Your task to perform on an android device: Go to Wikipedia Image 0: 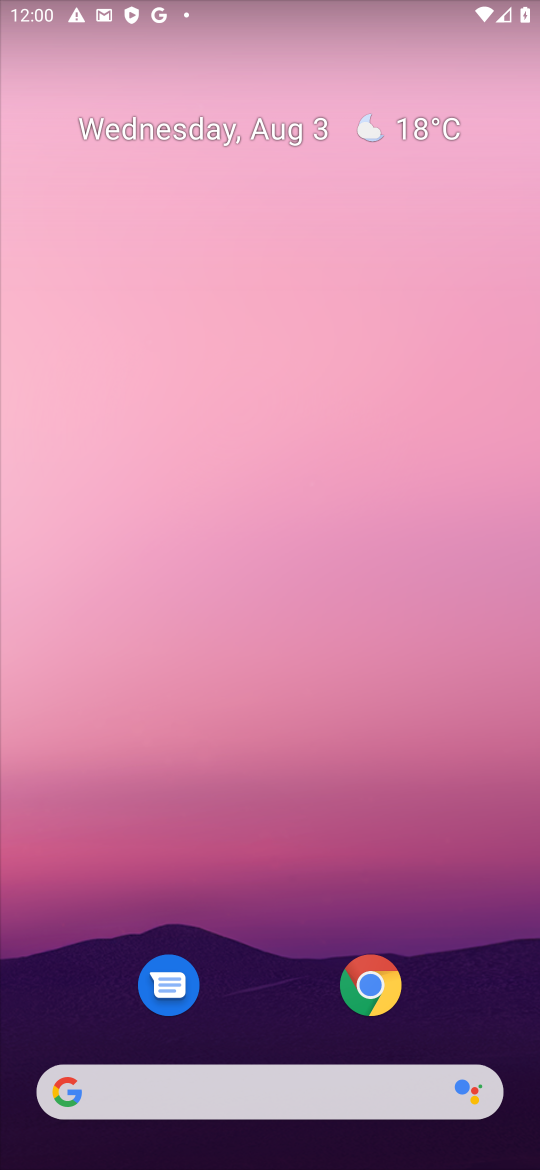
Step 0: drag from (336, 1043) to (259, 121)
Your task to perform on an android device: Go to Wikipedia Image 1: 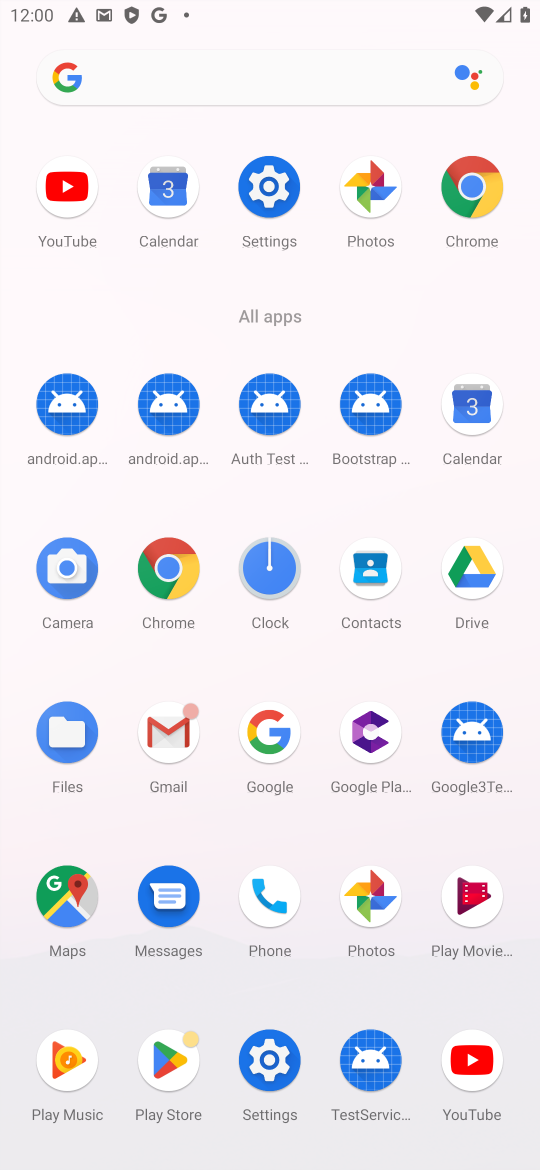
Step 1: click (264, 1058)
Your task to perform on an android device: Go to Wikipedia Image 2: 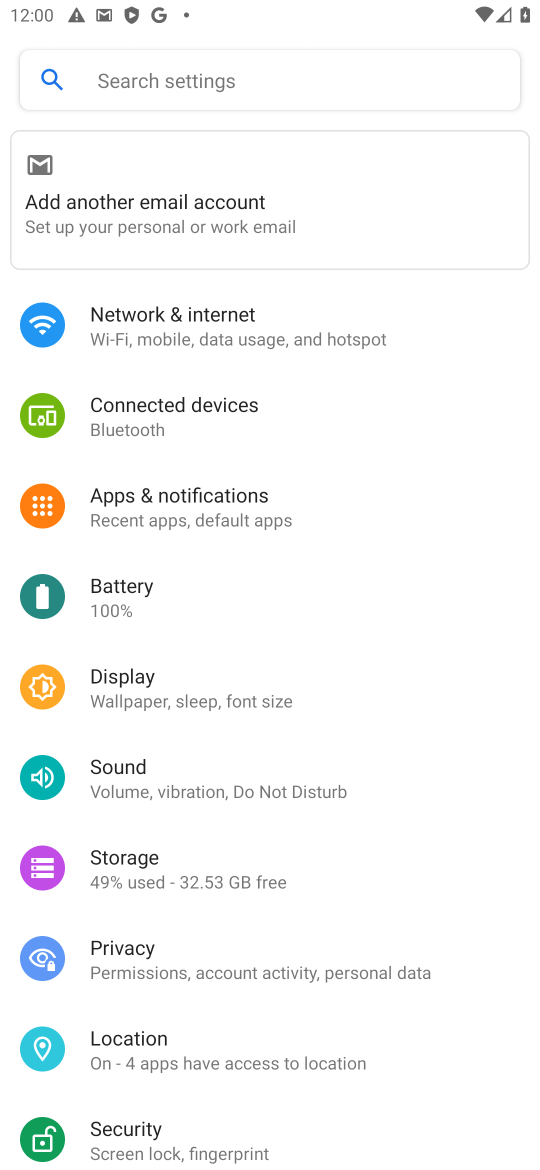
Step 2: press home button
Your task to perform on an android device: Go to Wikipedia Image 3: 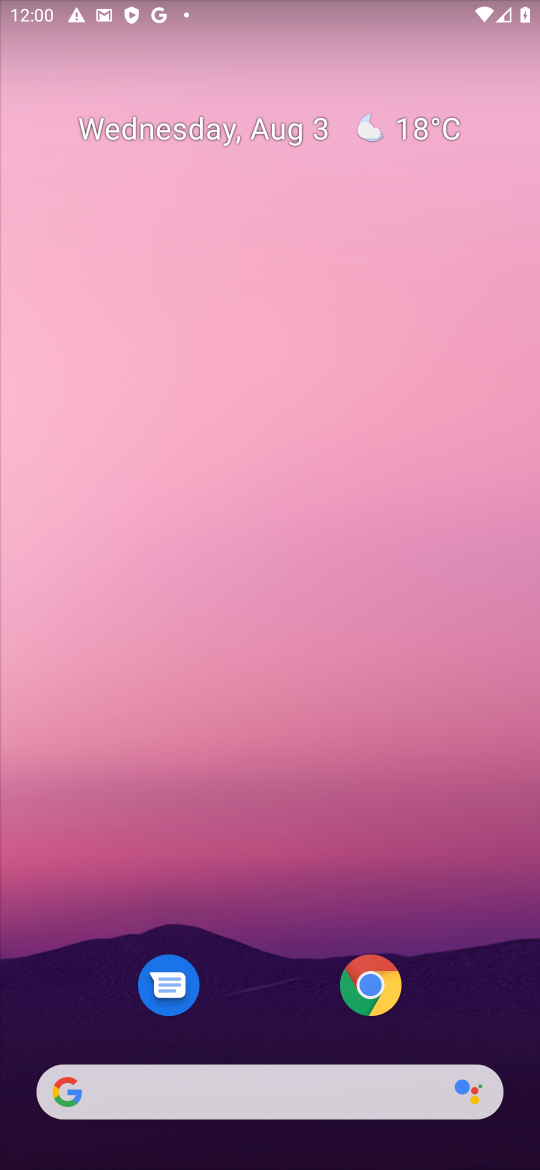
Step 3: drag from (298, 1057) to (269, 235)
Your task to perform on an android device: Go to Wikipedia Image 4: 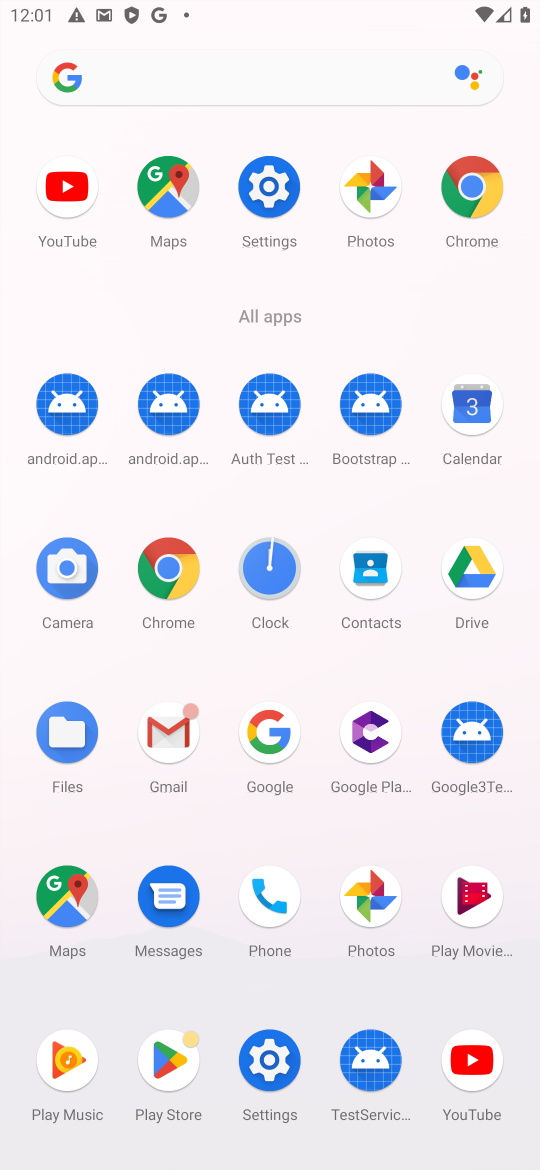
Step 4: click (160, 545)
Your task to perform on an android device: Go to Wikipedia Image 5: 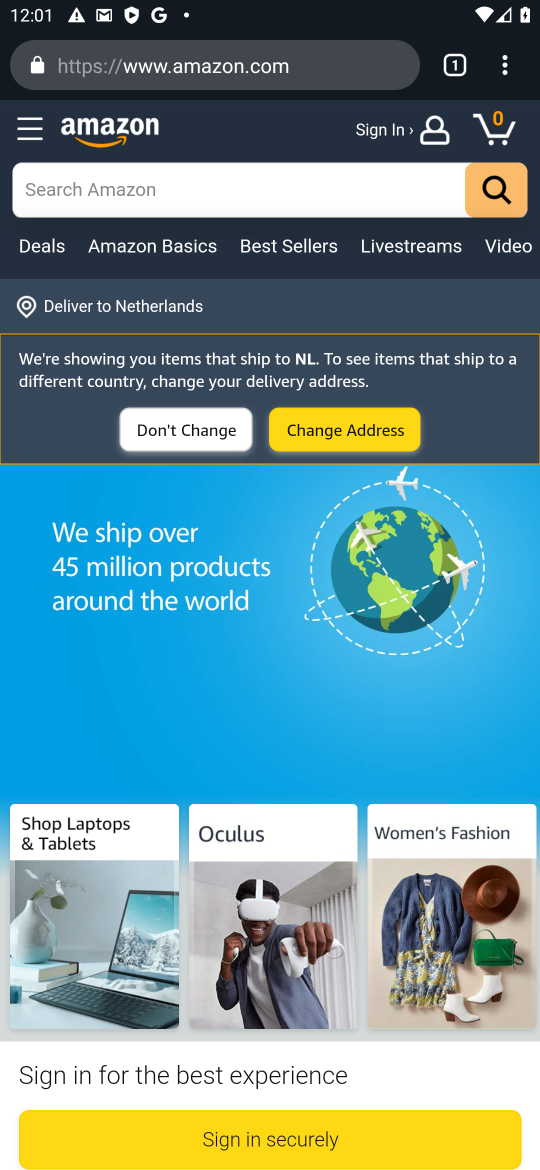
Step 5: click (358, 62)
Your task to perform on an android device: Go to Wikipedia Image 6: 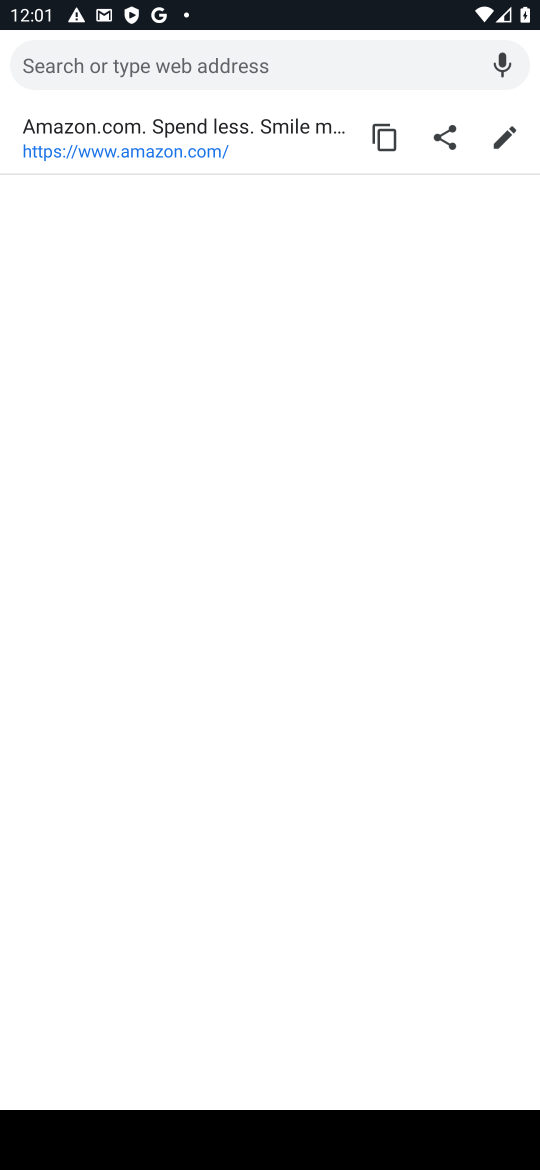
Step 6: type "wikipedia"
Your task to perform on an android device: Go to Wikipedia Image 7: 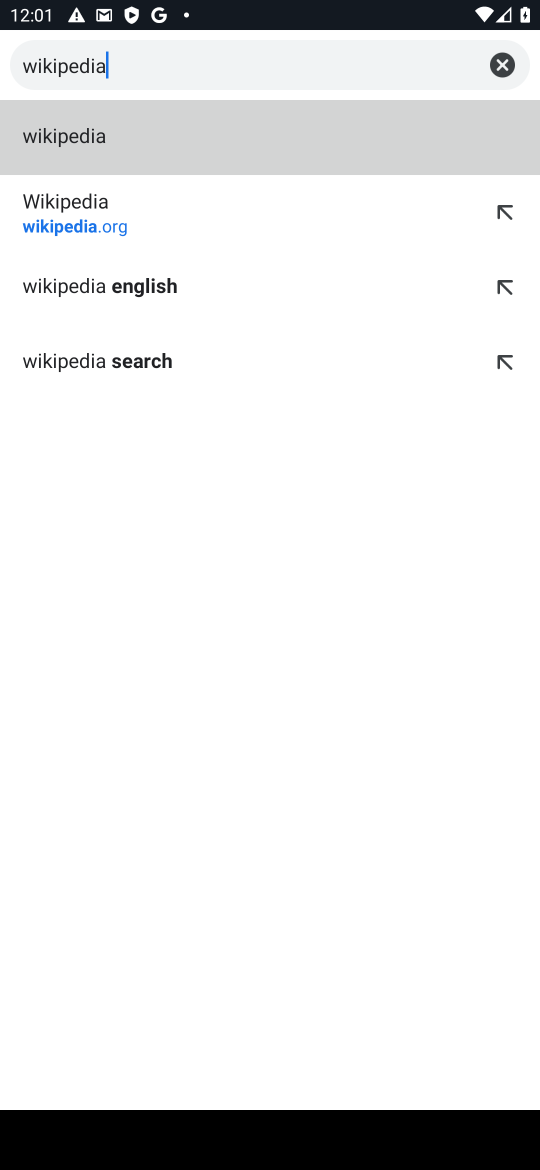
Step 7: click (311, 140)
Your task to perform on an android device: Go to Wikipedia Image 8: 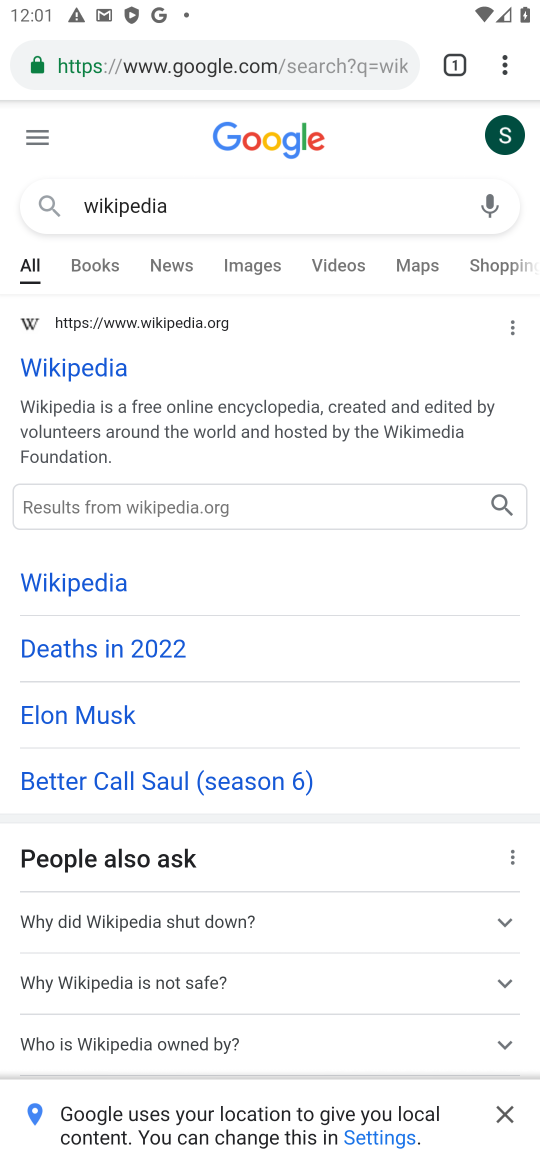
Step 8: click (66, 381)
Your task to perform on an android device: Go to Wikipedia Image 9: 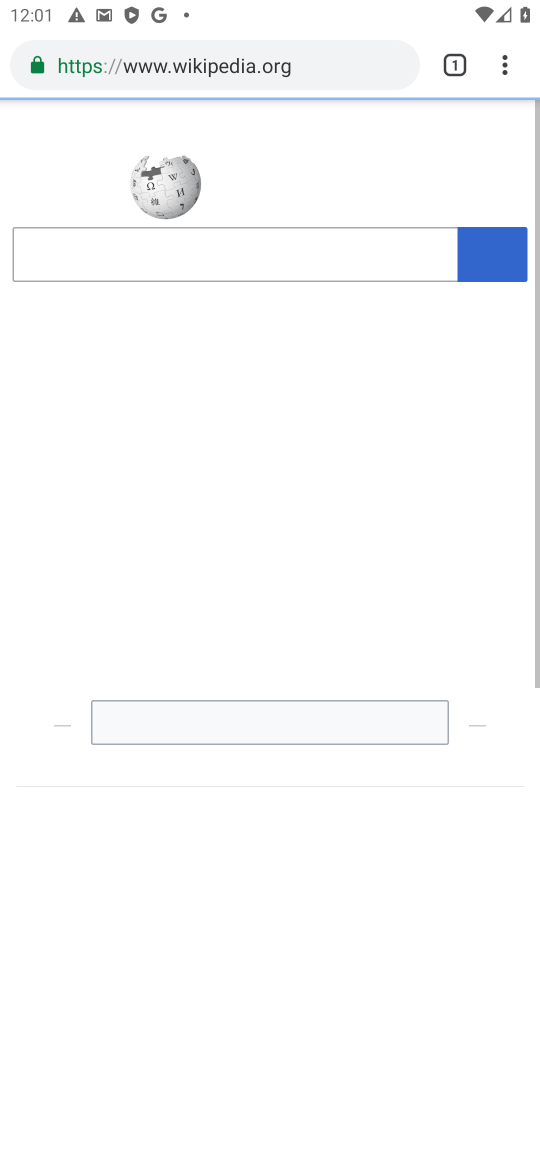
Step 9: task complete